Your task to perform on an android device: search for starred emails in the gmail app Image 0: 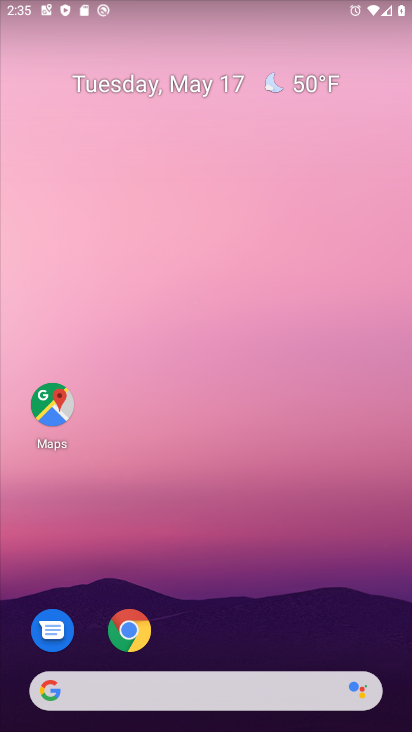
Step 0: click (239, 218)
Your task to perform on an android device: search for starred emails in the gmail app Image 1: 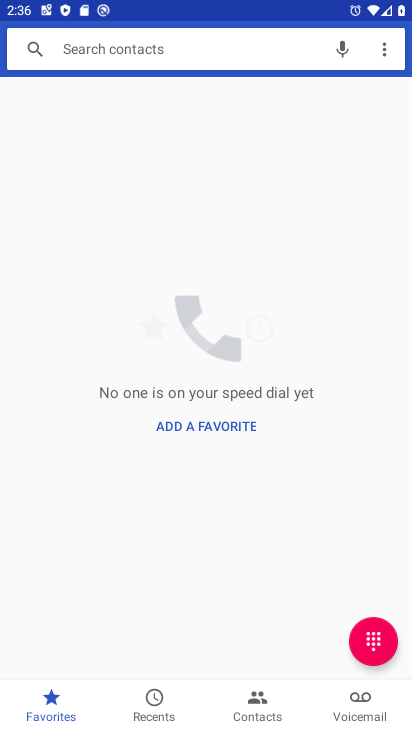
Step 1: press home button
Your task to perform on an android device: search for starred emails in the gmail app Image 2: 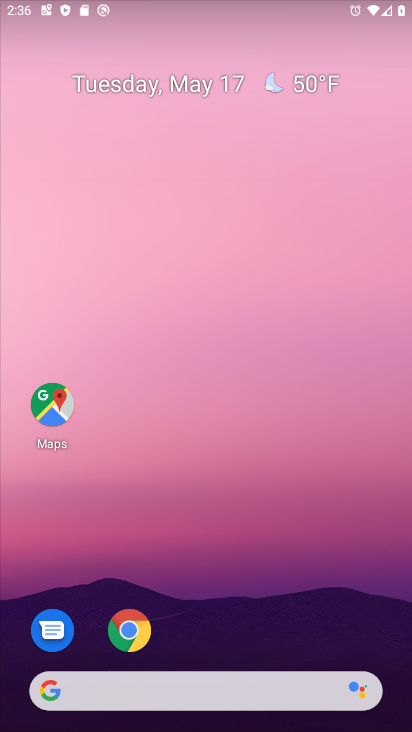
Step 2: drag from (170, 663) to (189, 274)
Your task to perform on an android device: search for starred emails in the gmail app Image 3: 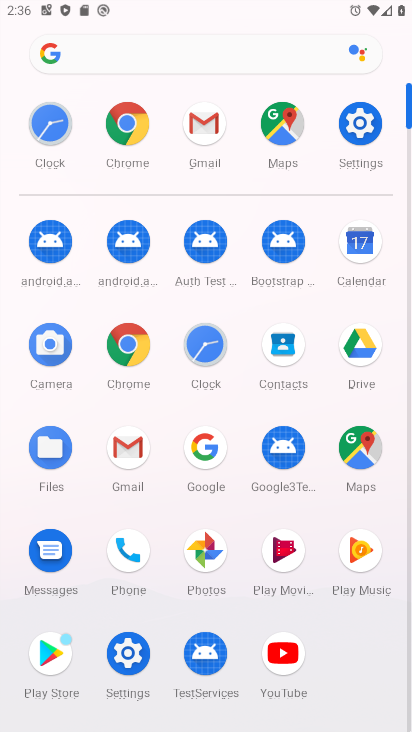
Step 3: click (183, 130)
Your task to perform on an android device: search for starred emails in the gmail app Image 4: 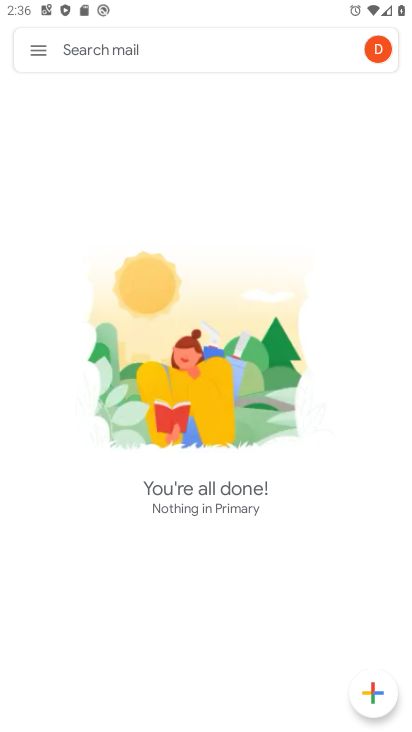
Step 4: click (32, 53)
Your task to perform on an android device: search for starred emails in the gmail app Image 5: 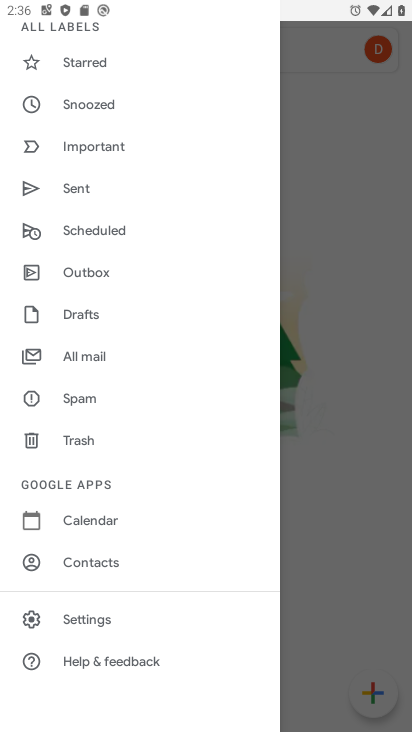
Step 5: click (84, 47)
Your task to perform on an android device: search for starred emails in the gmail app Image 6: 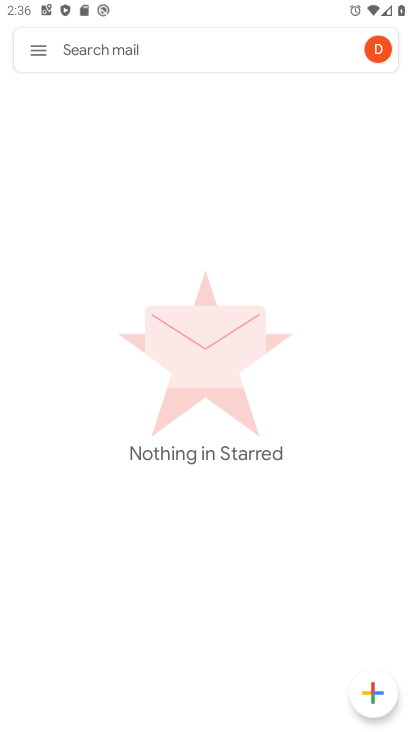
Step 6: task complete